Your task to perform on an android device: Open Wikipedia Image 0: 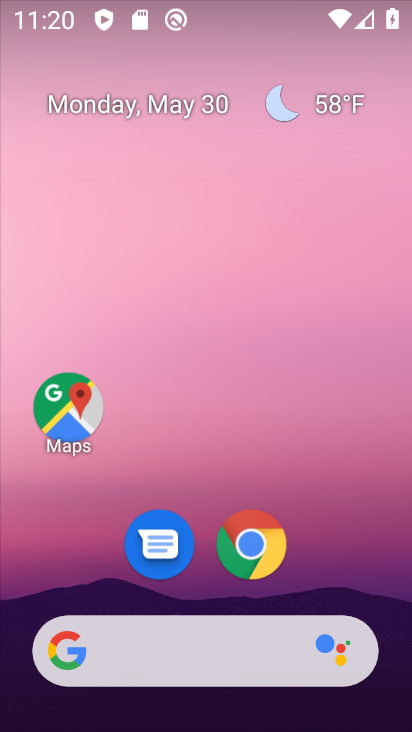
Step 0: click (167, 638)
Your task to perform on an android device: Open Wikipedia Image 1: 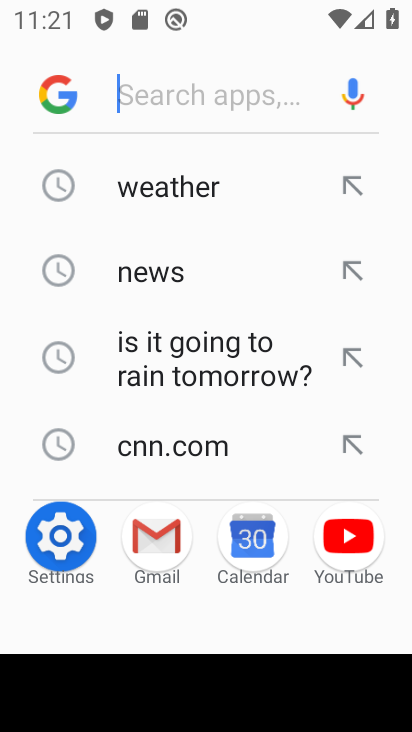
Step 1: type "wikipedia"
Your task to perform on an android device: Open Wikipedia Image 2: 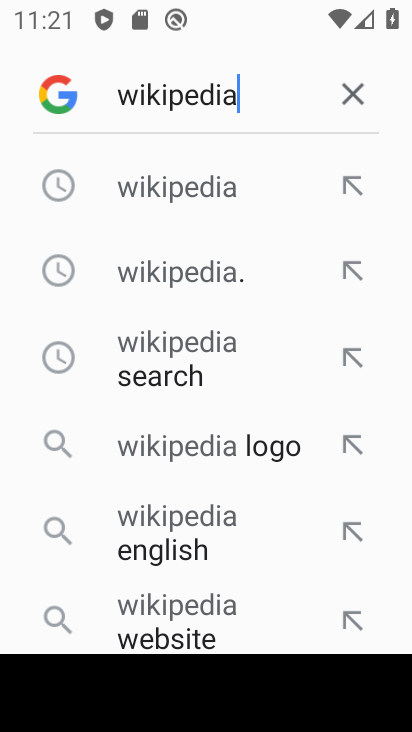
Step 2: click (136, 169)
Your task to perform on an android device: Open Wikipedia Image 3: 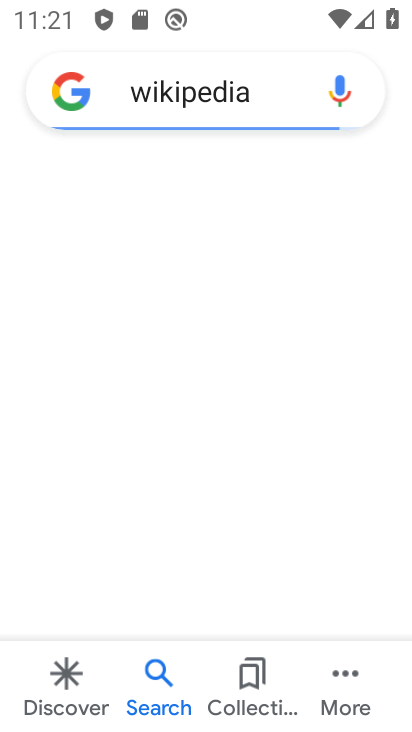
Step 3: task complete